Your task to perform on an android device: open a bookmark in the chrome app Image 0: 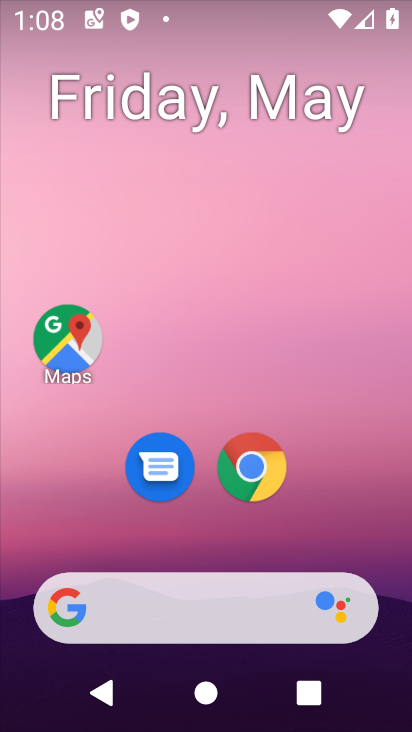
Step 0: click (270, 480)
Your task to perform on an android device: open a bookmark in the chrome app Image 1: 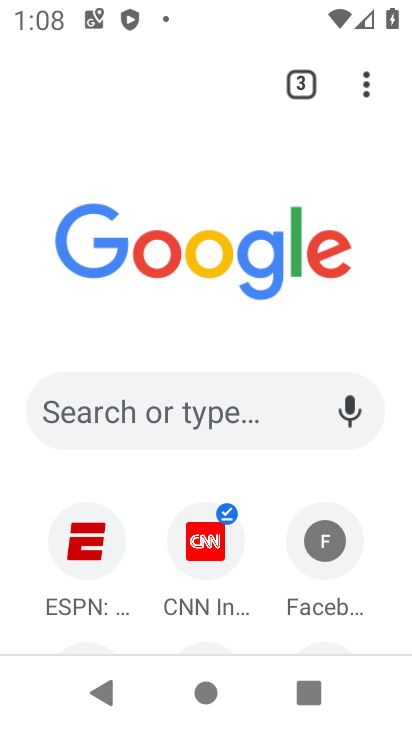
Step 1: click (270, 480)
Your task to perform on an android device: open a bookmark in the chrome app Image 2: 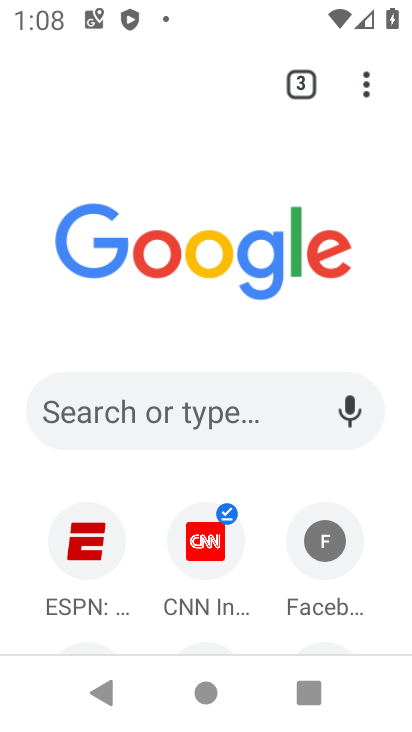
Step 2: task complete